Your task to perform on an android device: What's the weather today? Image 0: 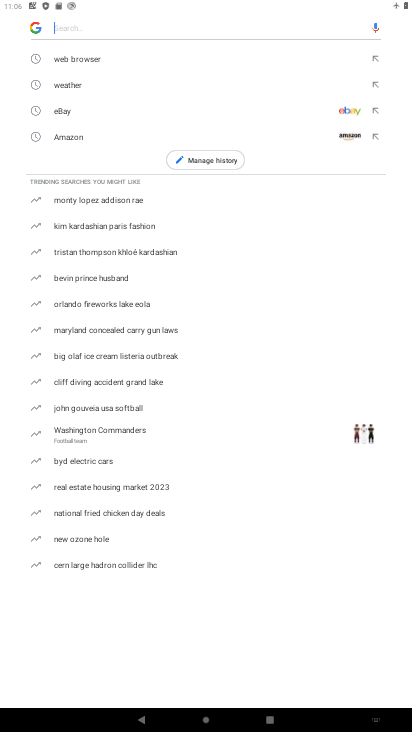
Step 0: press home button
Your task to perform on an android device: What's the weather today? Image 1: 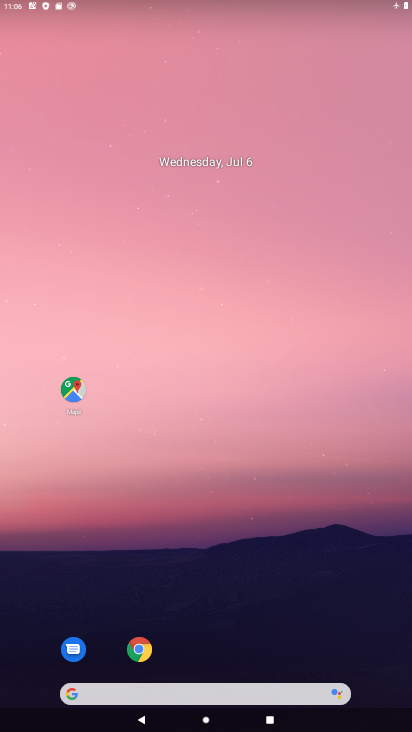
Step 1: drag from (375, 646) to (269, 30)
Your task to perform on an android device: What's the weather today? Image 2: 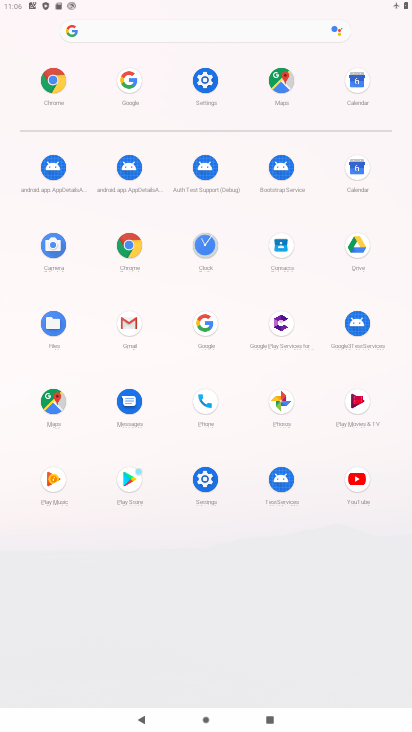
Step 2: click (115, 73)
Your task to perform on an android device: What's the weather today? Image 3: 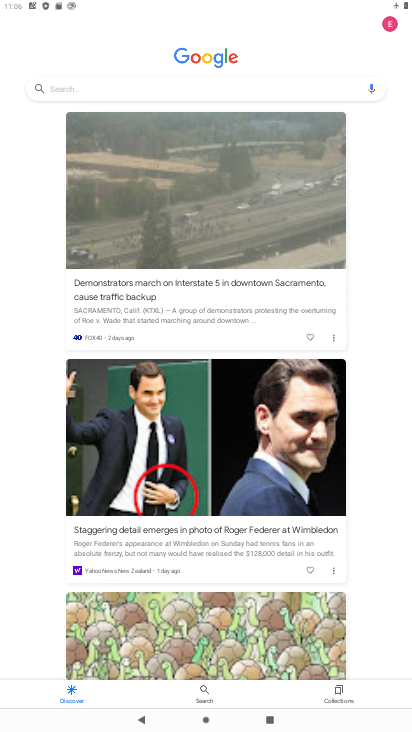
Step 3: click (92, 93)
Your task to perform on an android device: What's the weather today? Image 4: 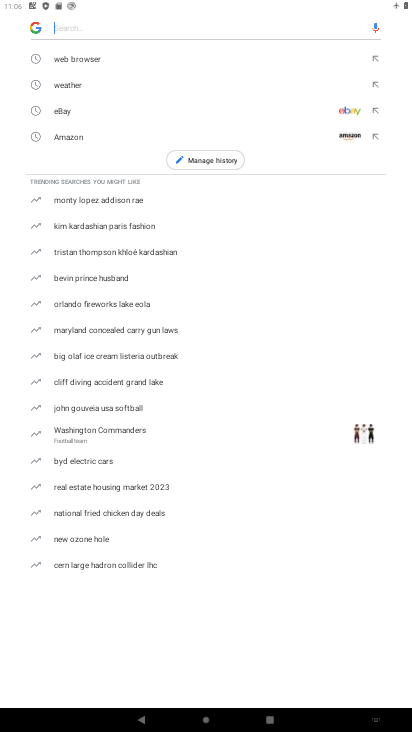
Step 4: type "what's the weather today?"
Your task to perform on an android device: What's the weather today? Image 5: 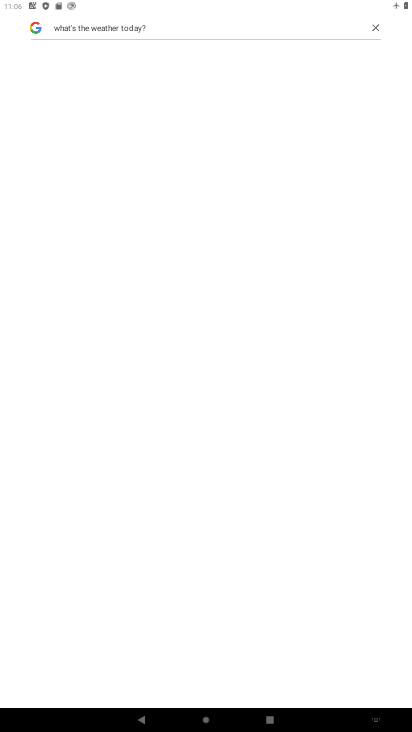
Step 5: task complete